Your task to perform on an android device: Open the phone app and click the voicemail tab. Image 0: 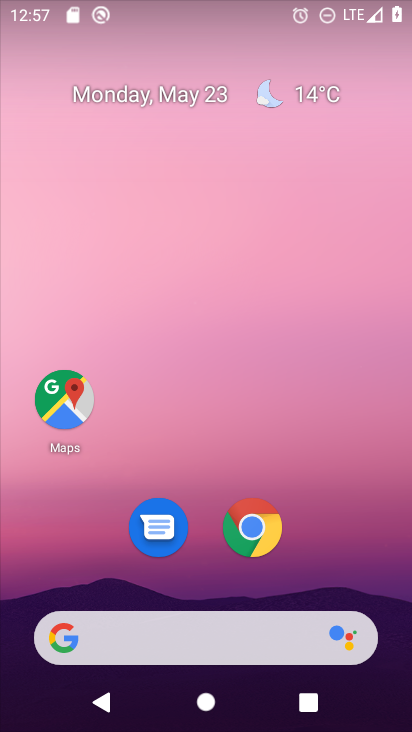
Step 0: drag from (357, 593) to (348, 366)
Your task to perform on an android device: Open the phone app and click the voicemail tab. Image 1: 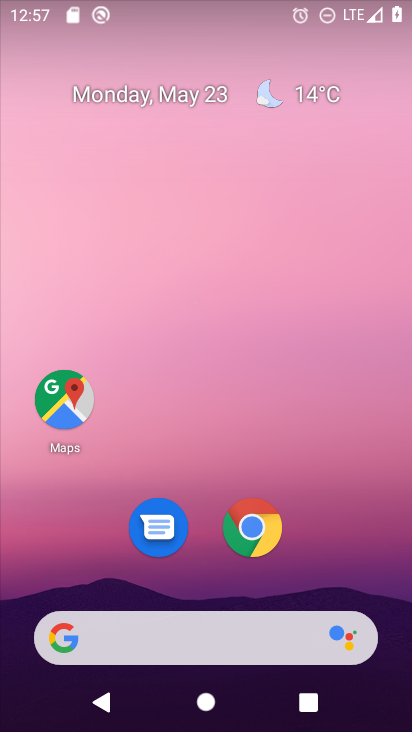
Step 1: drag from (402, 599) to (325, 151)
Your task to perform on an android device: Open the phone app and click the voicemail tab. Image 2: 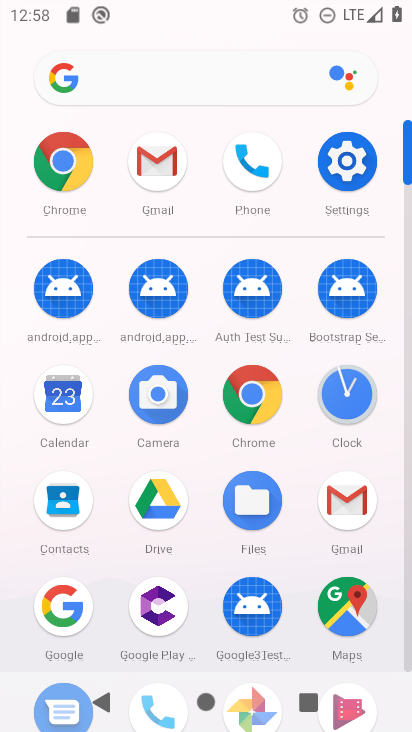
Step 2: click (254, 151)
Your task to perform on an android device: Open the phone app and click the voicemail tab. Image 3: 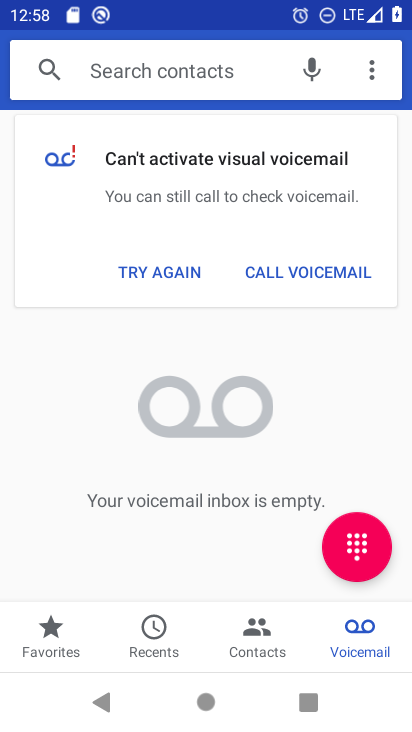
Step 3: task complete